Your task to perform on an android device: delete location history Image 0: 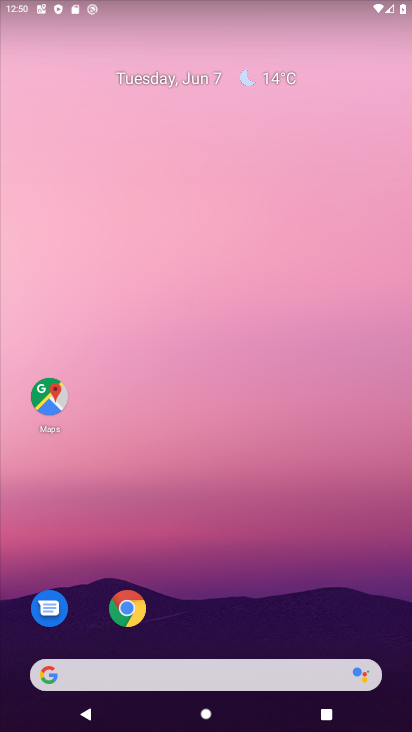
Step 0: drag from (278, 479) to (201, 29)
Your task to perform on an android device: delete location history Image 1: 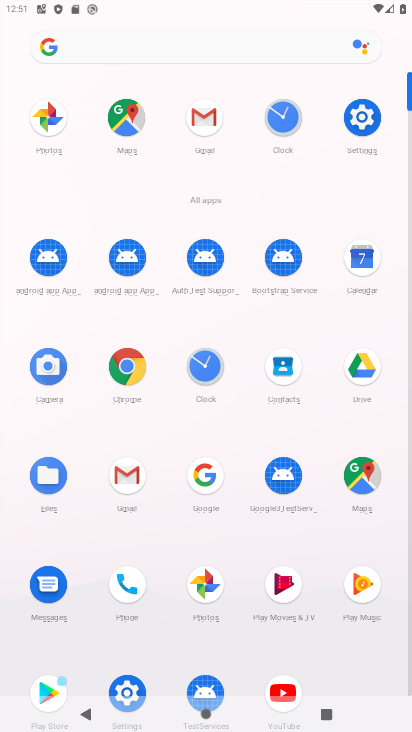
Step 1: click (119, 124)
Your task to perform on an android device: delete location history Image 2: 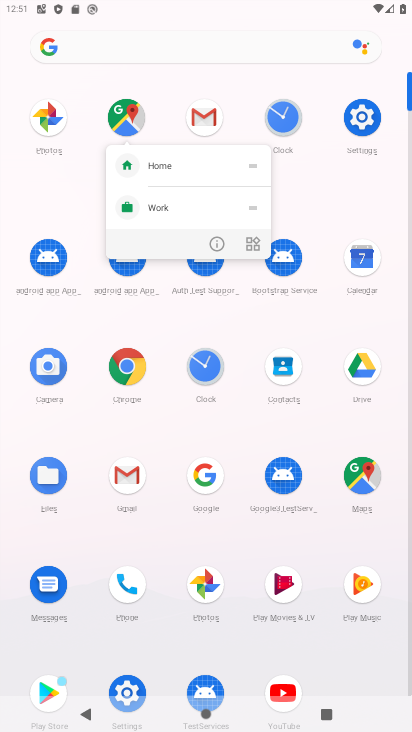
Step 2: click (130, 127)
Your task to perform on an android device: delete location history Image 3: 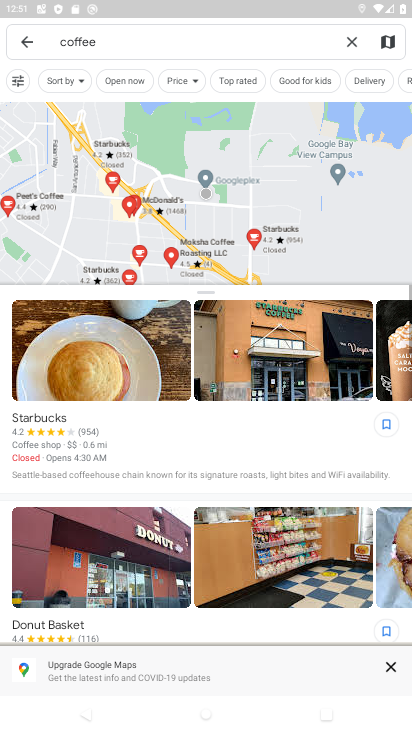
Step 3: click (35, 37)
Your task to perform on an android device: delete location history Image 4: 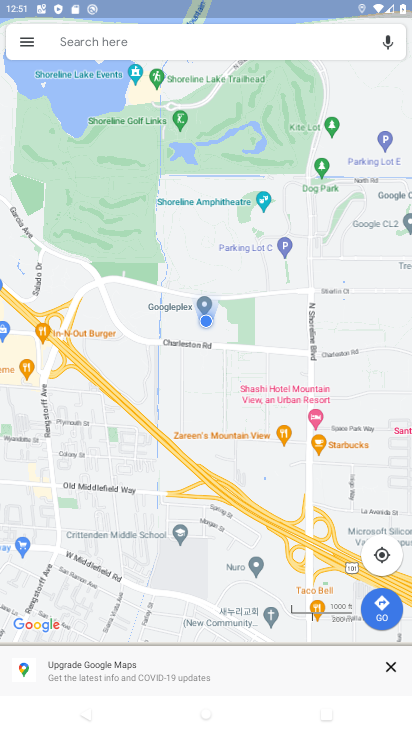
Step 4: click (35, 37)
Your task to perform on an android device: delete location history Image 5: 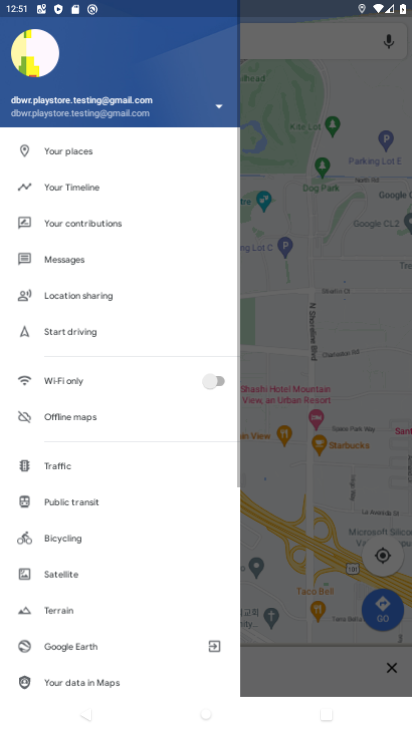
Step 5: drag from (114, 654) to (115, 269)
Your task to perform on an android device: delete location history Image 6: 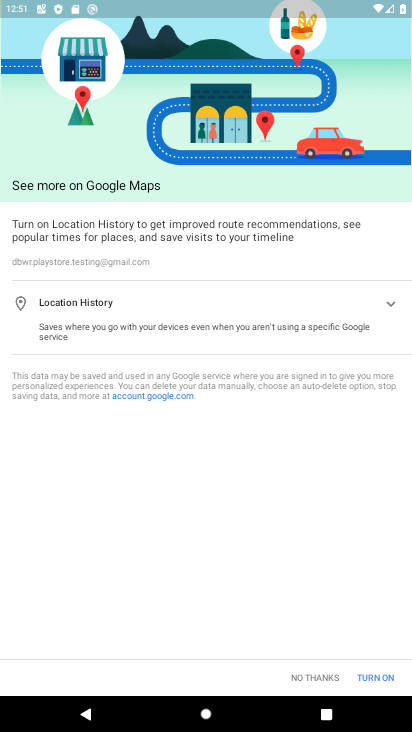
Step 6: click (322, 672)
Your task to perform on an android device: delete location history Image 7: 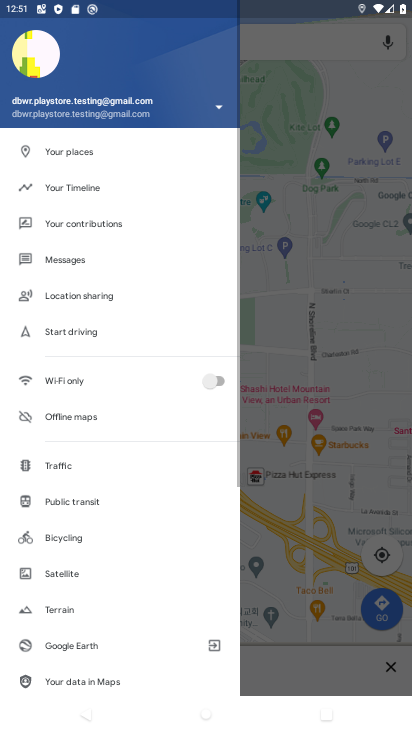
Step 7: drag from (75, 543) to (84, 253)
Your task to perform on an android device: delete location history Image 8: 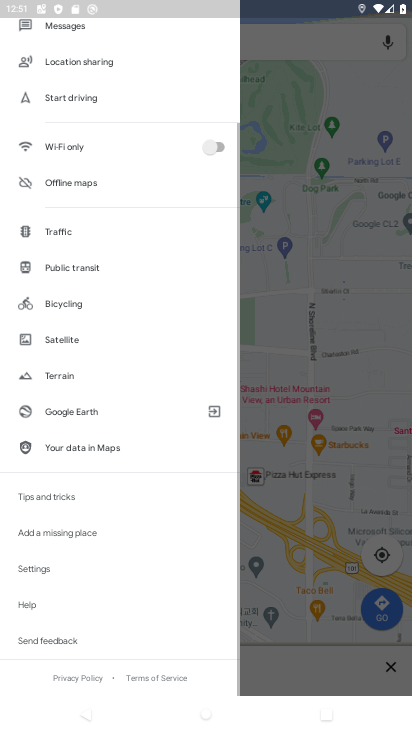
Step 8: click (56, 576)
Your task to perform on an android device: delete location history Image 9: 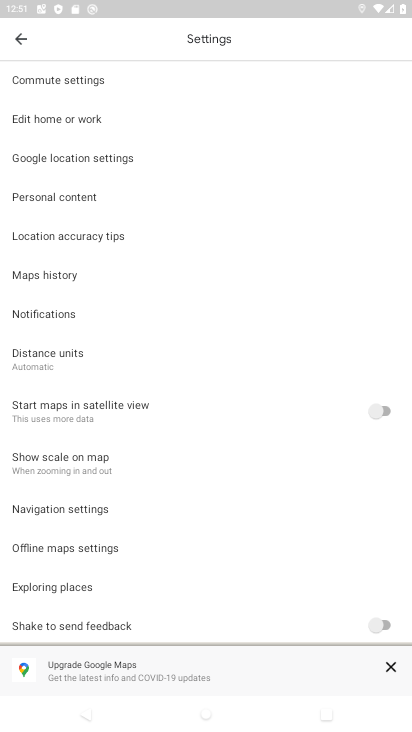
Step 9: click (59, 280)
Your task to perform on an android device: delete location history Image 10: 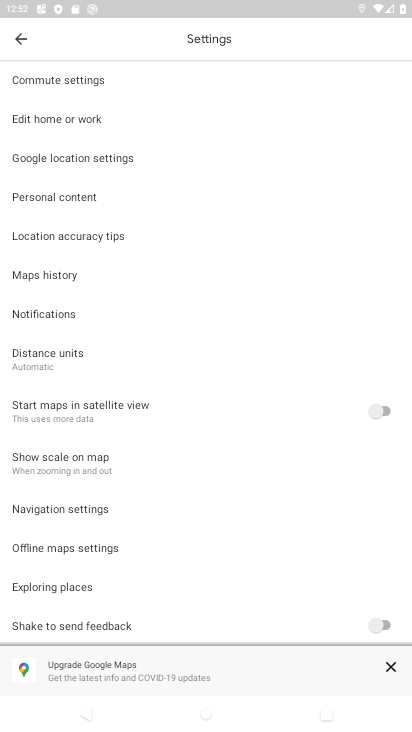
Step 10: click (68, 275)
Your task to perform on an android device: delete location history Image 11: 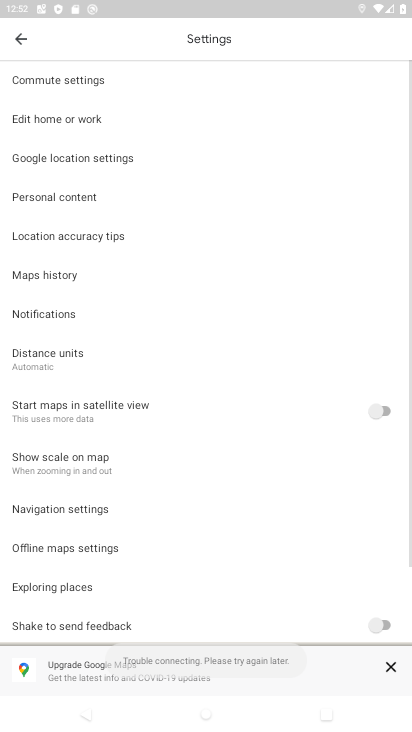
Step 11: click (68, 275)
Your task to perform on an android device: delete location history Image 12: 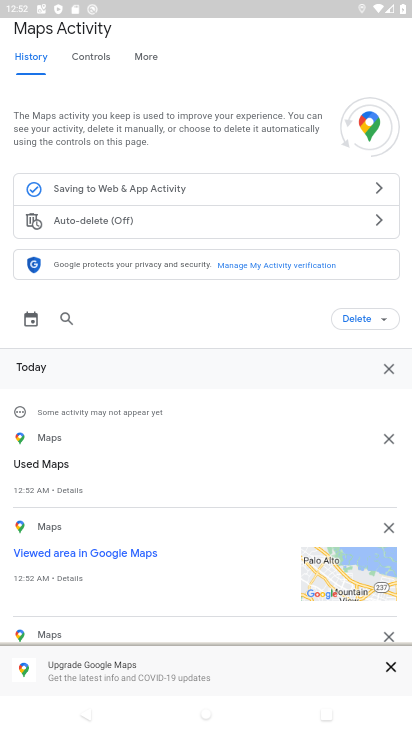
Step 12: click (384, 332)
Your task to perform on an android device: delete location history Image 13: 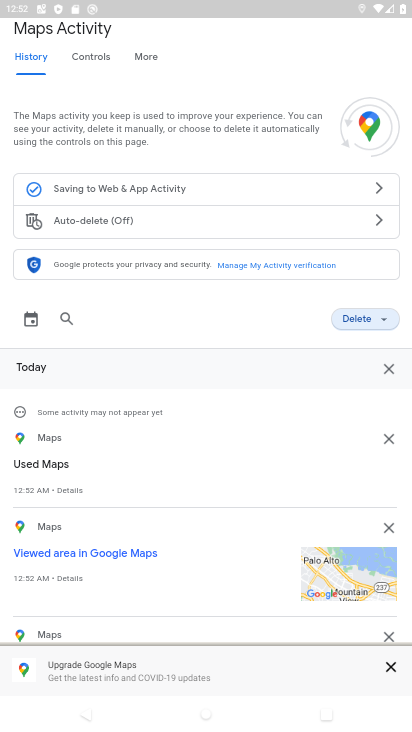
Step 13: click (382, 328)
Your task to perform on an android device: delete location history Image 14: 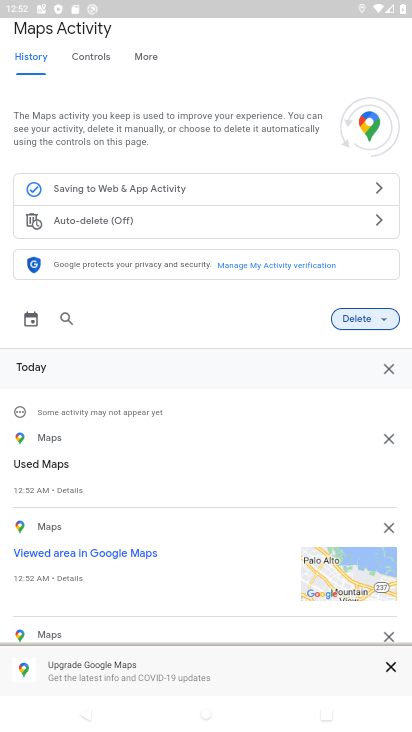
Step 14: click (357, 324)
Your task to perform on an android device: delete location history Image 15: 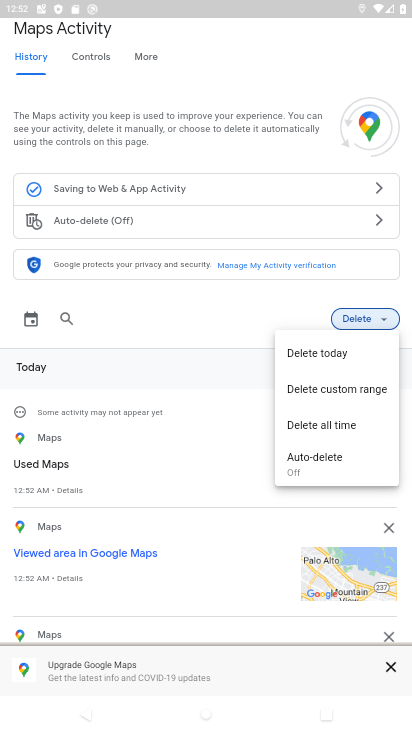
Step 15: click (317, 422)
Your task to perform on an android device: delete location history Image 16: 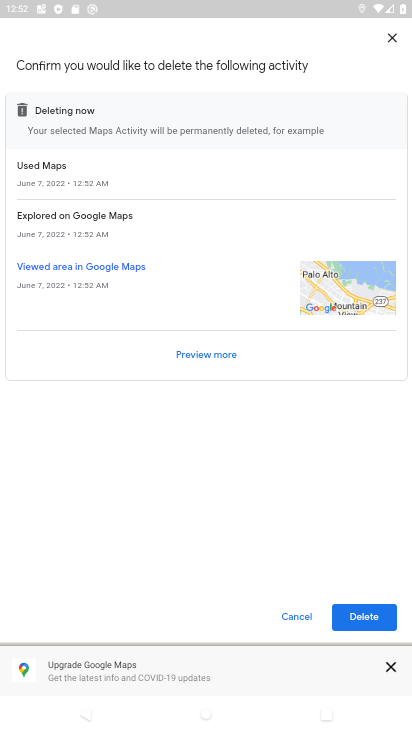
Step 16: click (364, 621)
Your task to perform on an android device: delete location history Image 17: 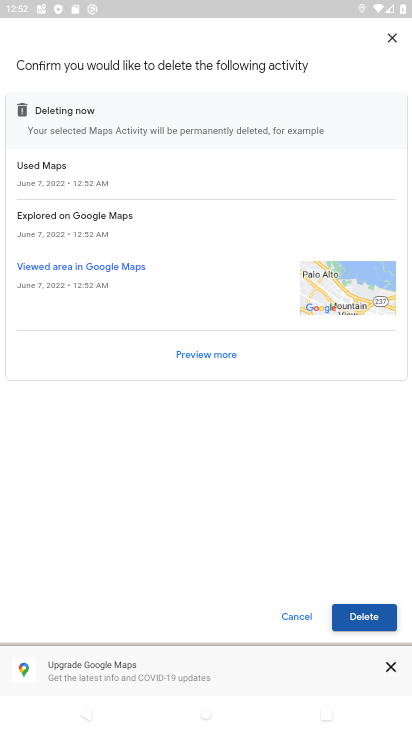
Step 17: click (378, 610)
Your task to perform on an android device: delete location history Image 18: 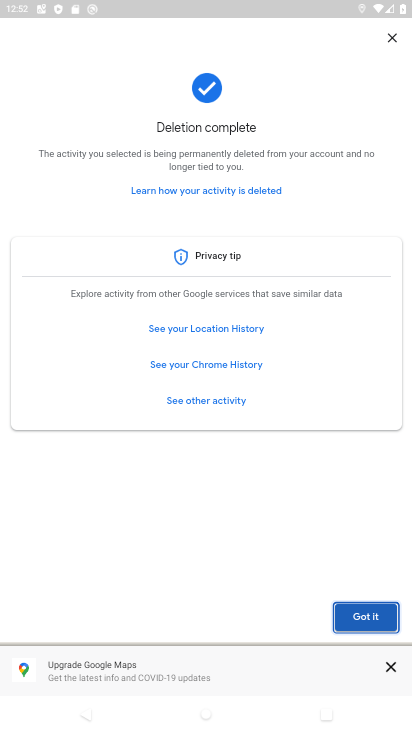
Step 18: task complete